Your task to perform on an android device: What's the weather? Image 0: 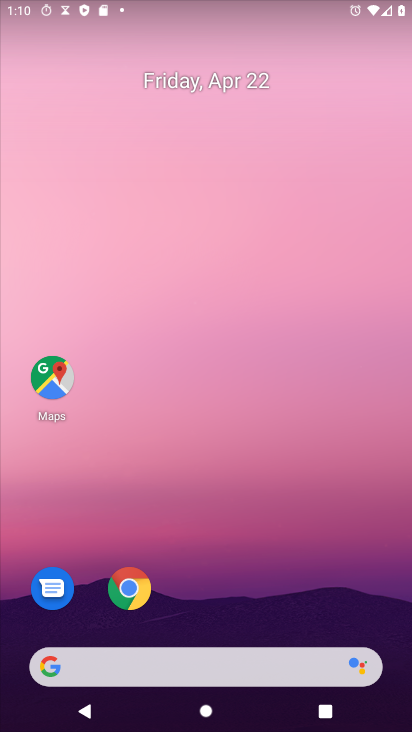
Step 0: drag from (236, 670) to (230, 148)
Your task to perform on an android device: What's the weather? Image 1: 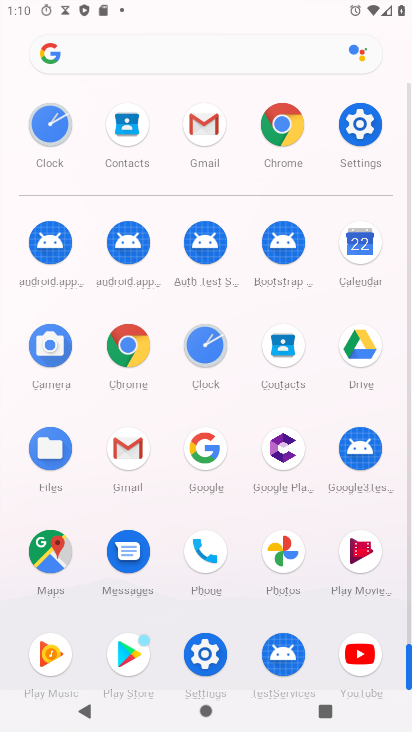
Step 1: click (138, 48)
Your task to perform on an android device: What's the weather? Image 2: 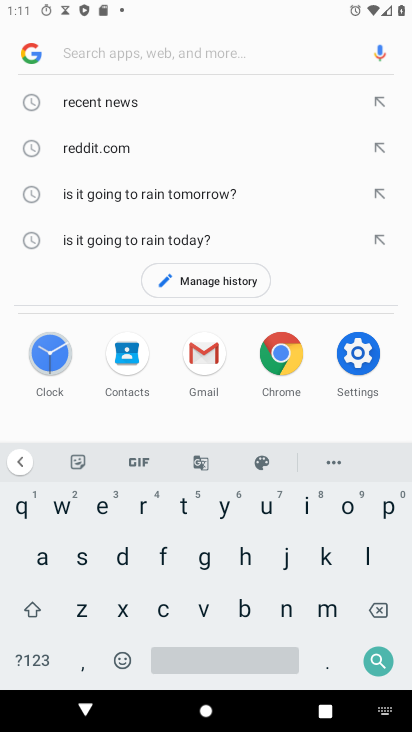
Step 2: click (61, 508)
Your task to perform on an android device: What's the weather? Image 3: 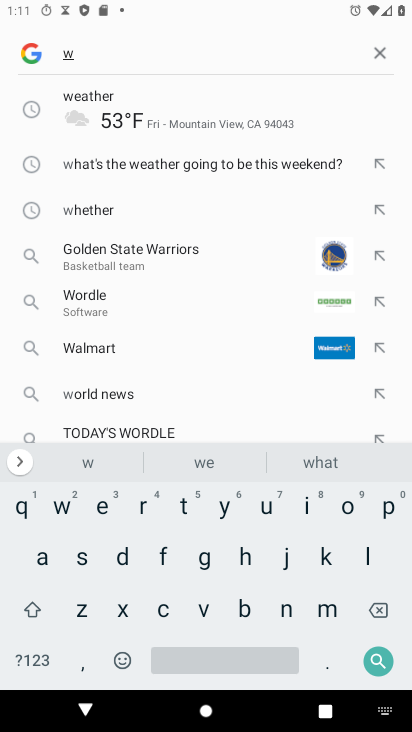
Step 3: click (137, 113)
Your task to perform on an android device: What's the weather? Image 4: 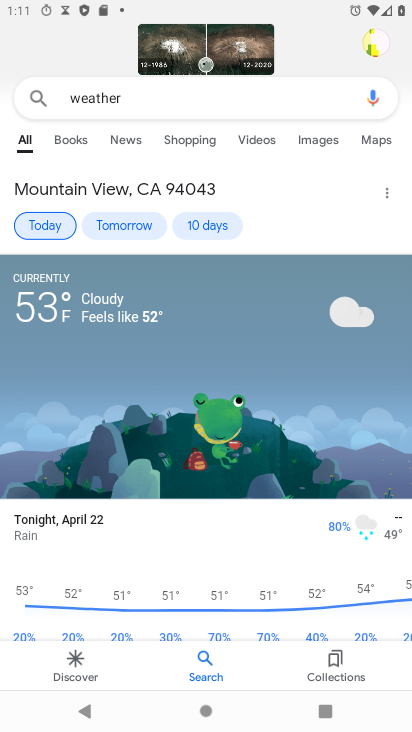
Step 4: click (49, 229)
Your task to perform on an android device: What's the weather? Image 5: 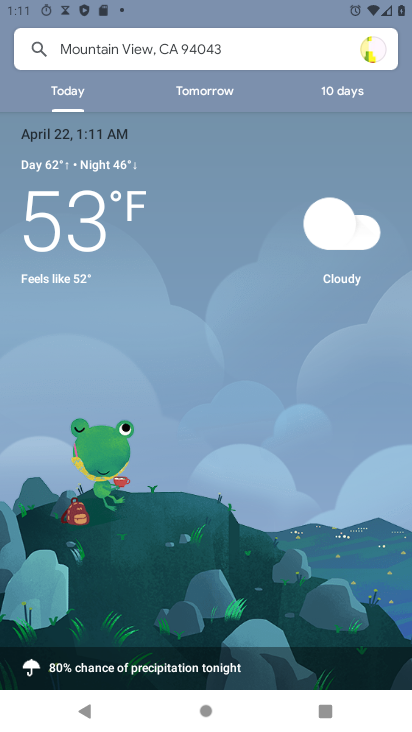
Step 5: task complete